Your task to perform on an android device: Search for seafood restaurants on Google Maps Image 0: 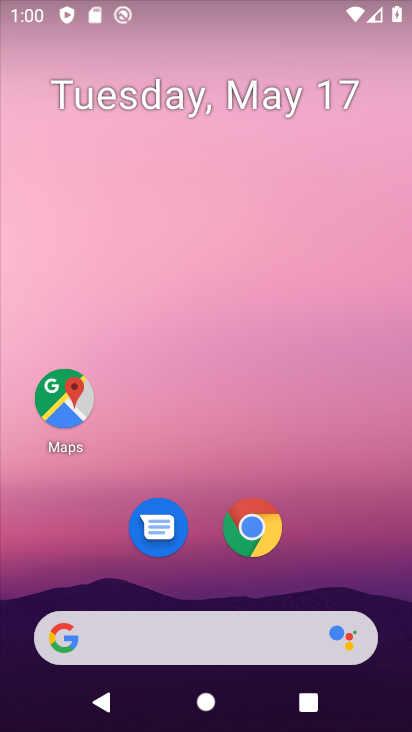
Step 0: click (63, 383)
Your task to perform on an android device: Search for seafood restaurants on Google Maps Image 1: 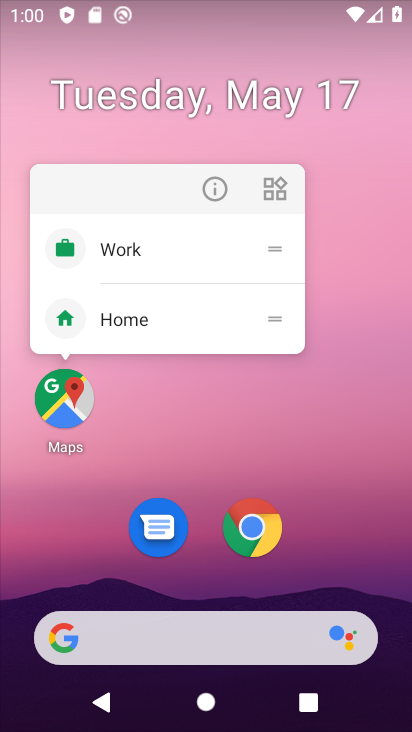
Step 1: click (63, 383)
Your task to perform on an android device: Search for seafood restaurants on Google Maps Image 2: 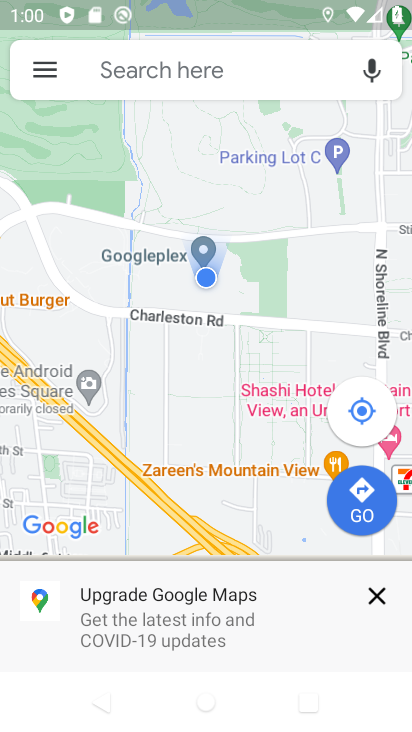
Step 2: click (273, 59)
Your task to perform on an android device: Search for seafood restaurants on Google Maps Image 3: 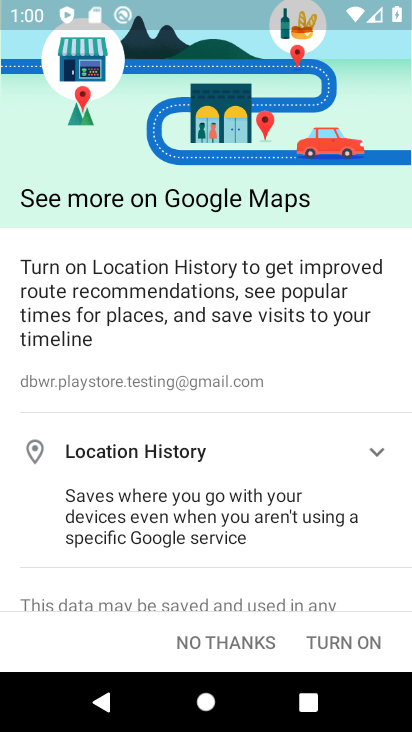
Step 3: click (250, 646)
Your task to perform on an android device: Search for seafood restaurants on Google Maps Image 4: 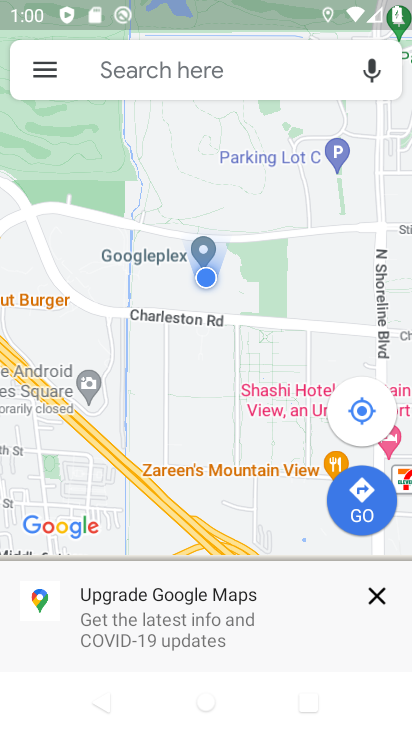
Step 4: click (222, 82)
Your task to perform on an android device: Search for seafood restaurants on Google Maps Image 5: 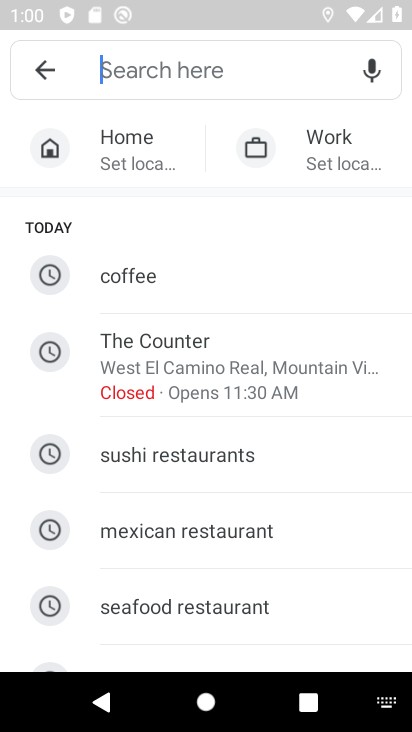
Step 5: type "seafood restaurants"
Your task to perform on an android device: Search for seafood restaurants on Google Maps Image 6: 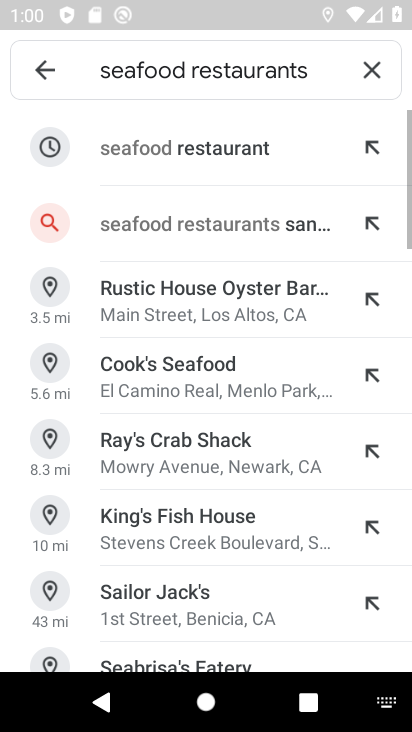
Step 6: click (256, 153)
Your task to perform on an android device: Search for seafood restaurants on Google Maps Image 7: 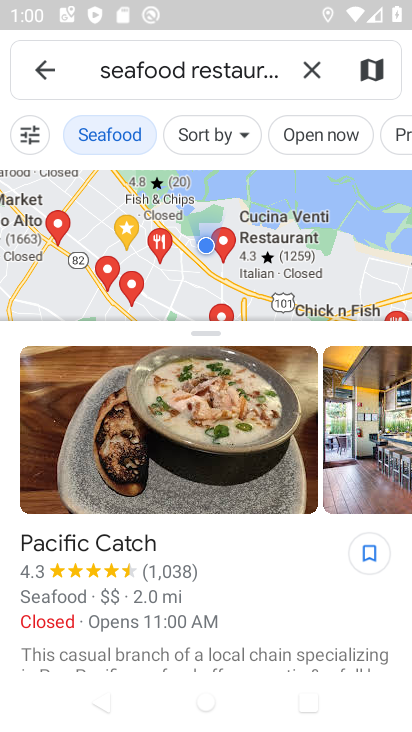
Step 7: task complete